Your task to perform on an android device: open a new tab in the chrome app Image 0: 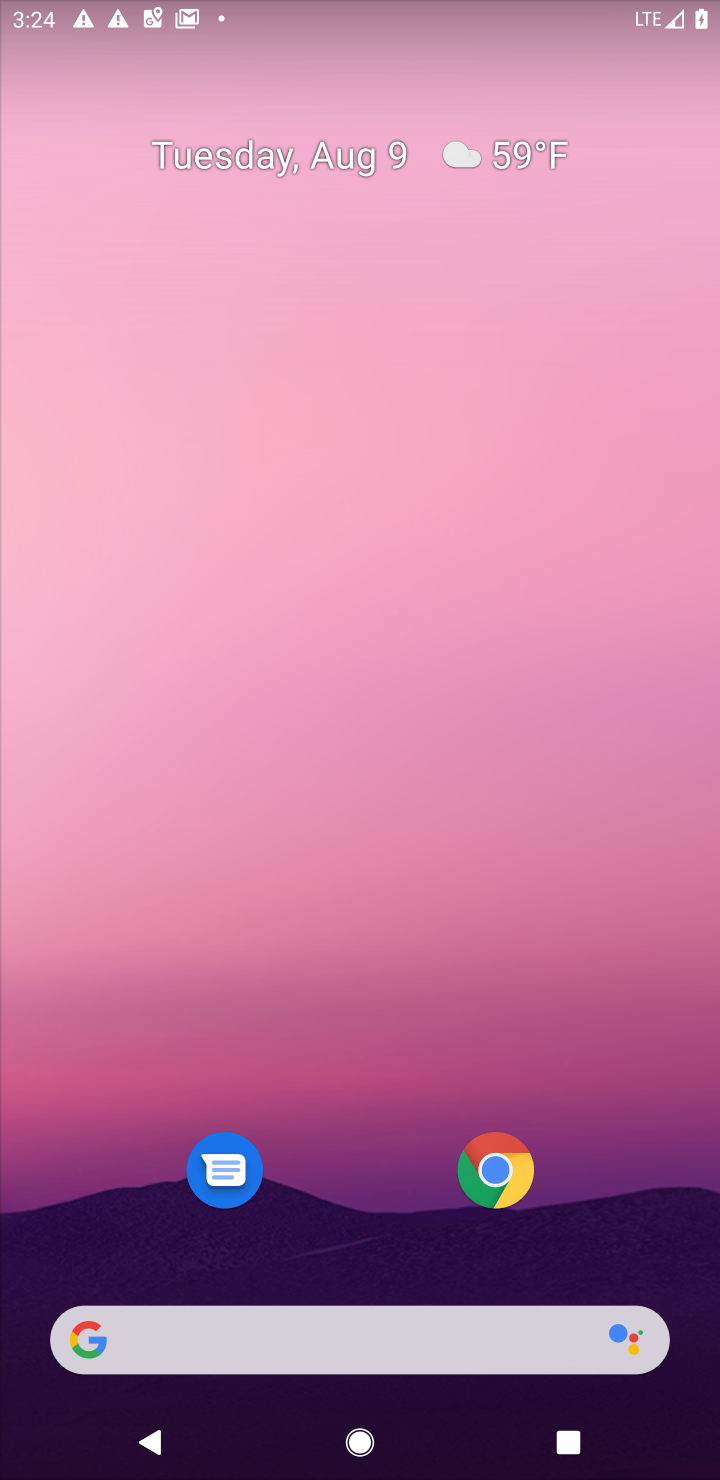
Step 0: press home button
Your task to perform on an android device: open a new tab in the chrome app Image 1: 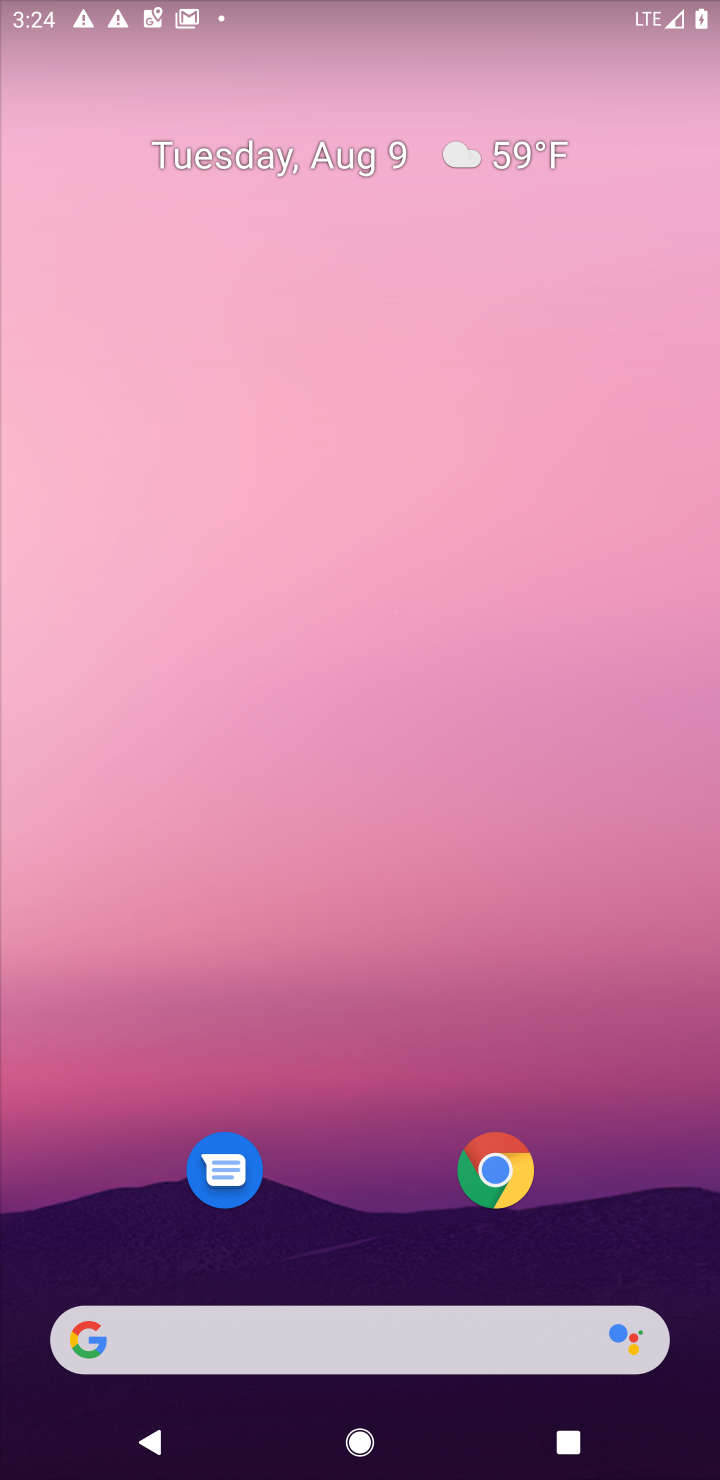
Step 1: click (503, 1167)
Your task to perform on an android device: open a new tab in the chrome app Image 2: 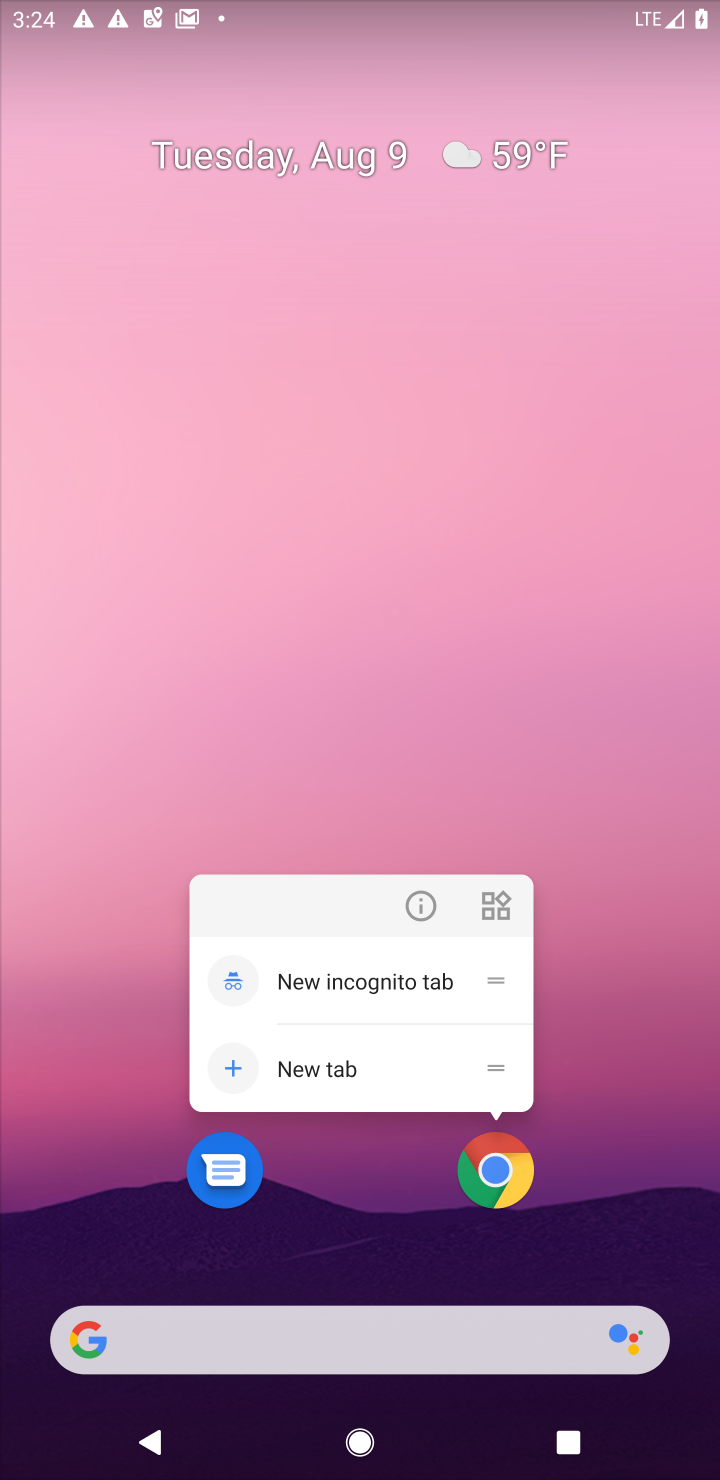
Step 2: click (503, 1167)
Your task to perform on an android device: open a new tab in the chrome app Image 3: 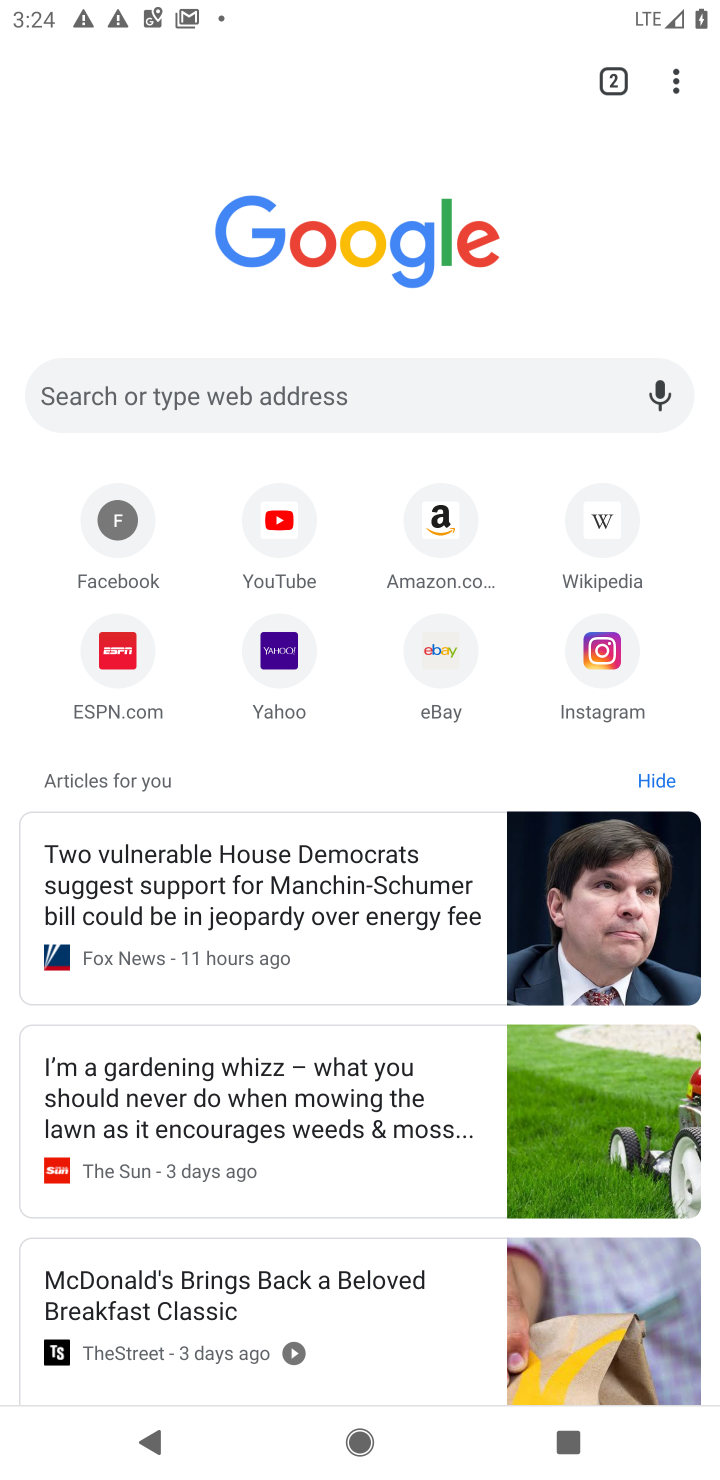
Step 3: click (615, 66)
Your task to perform on an android device: open a new tab in the chrome app Image 4: 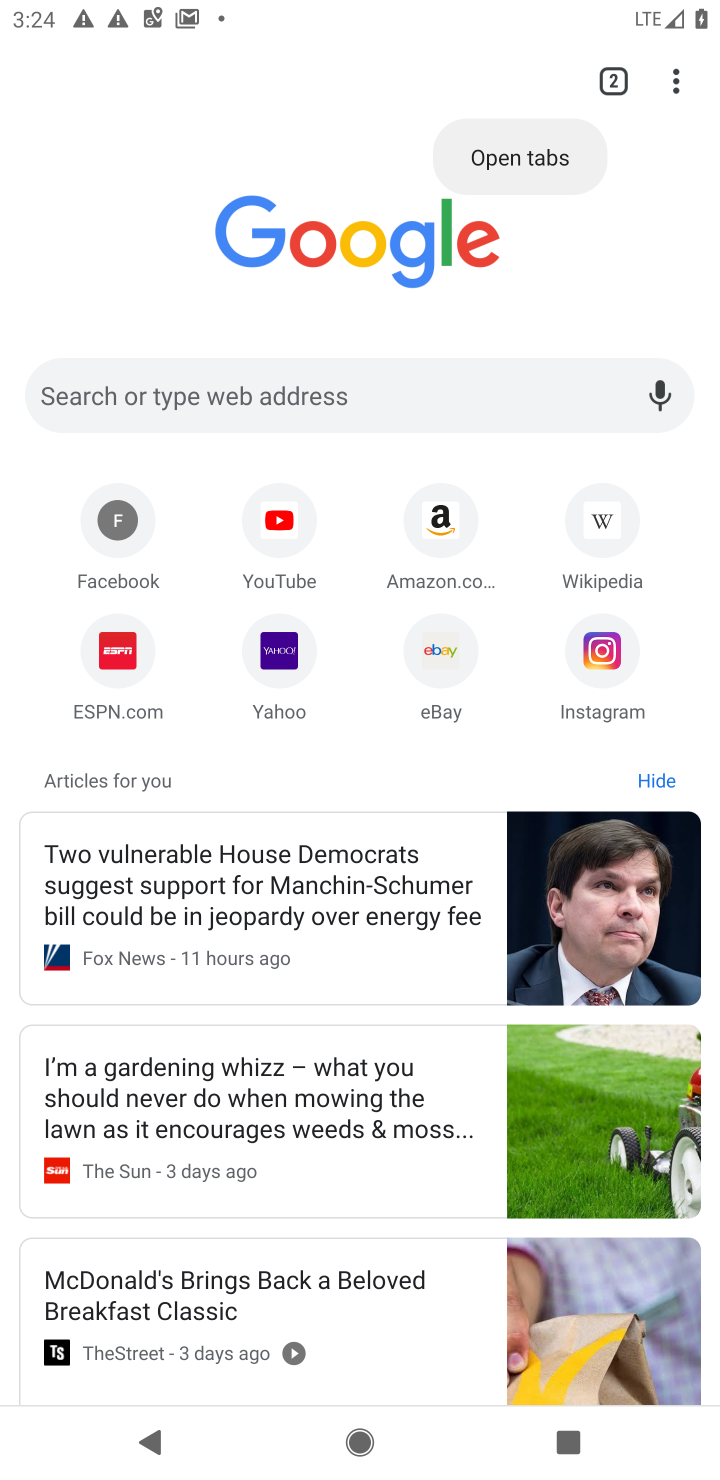
Step 4: click (682, 75)
Your task to perform on an android device: open a new tab in the chrome app Image 5: 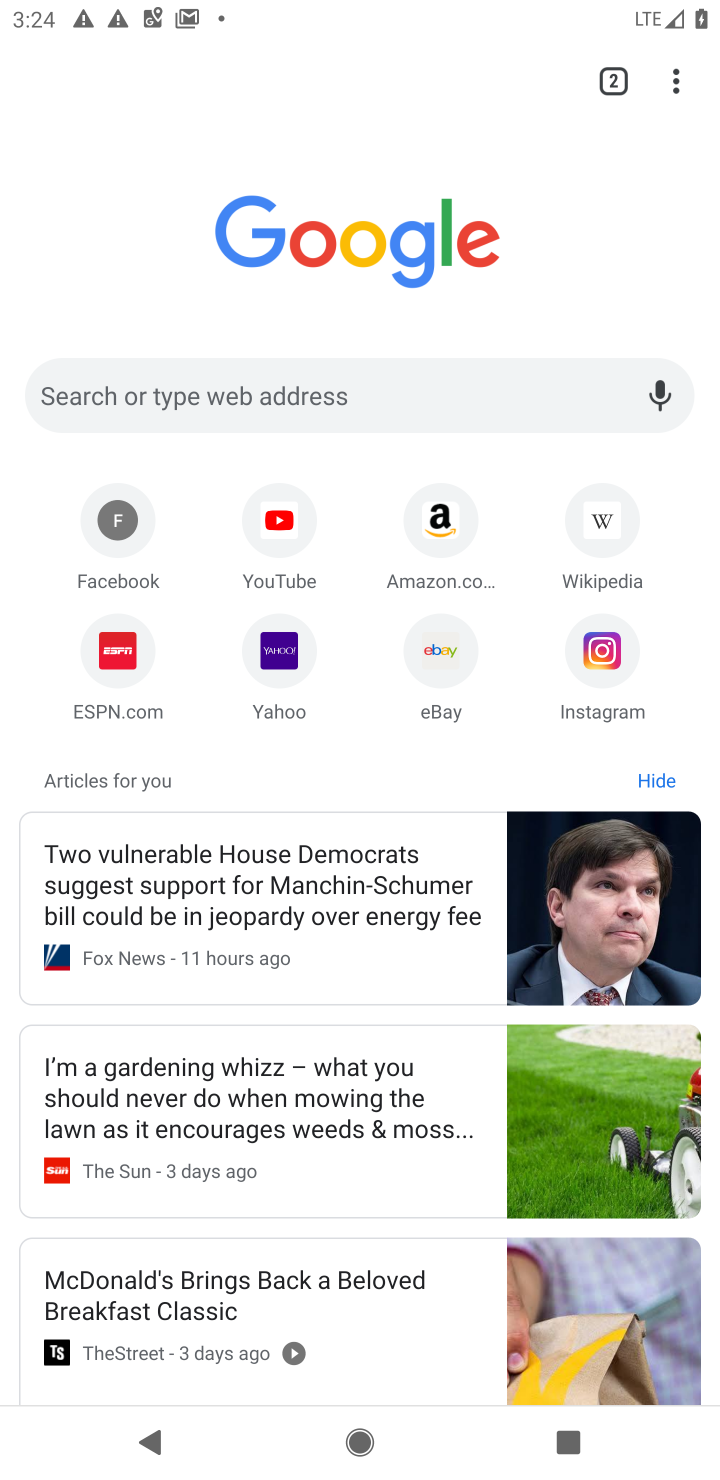
Step 5: task complete